Your task to perform on an android device: turn off picture-in-picture Image 0: 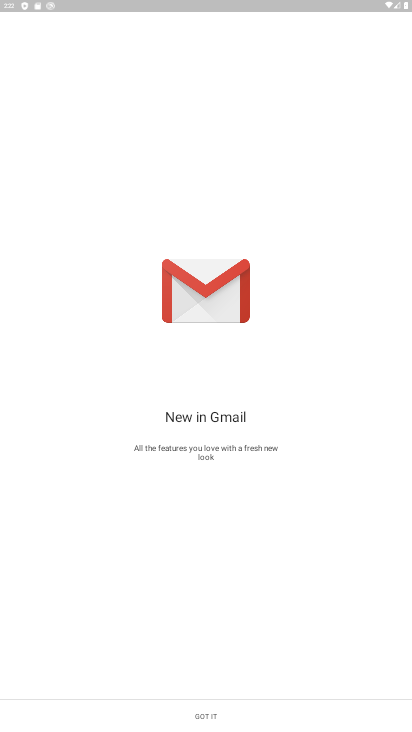
Step 0: press home button
Your task to perform on an android device: turn off picture-in-picture Image 1: 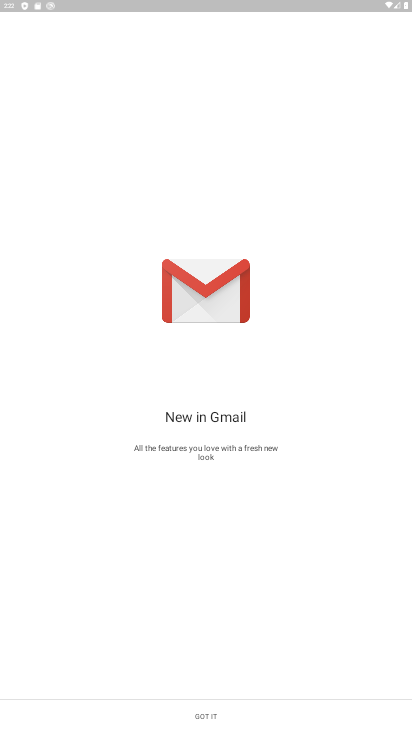
Step 1: press home button
Your task to perform on an android device: turn off picture-in-picture Image 2: 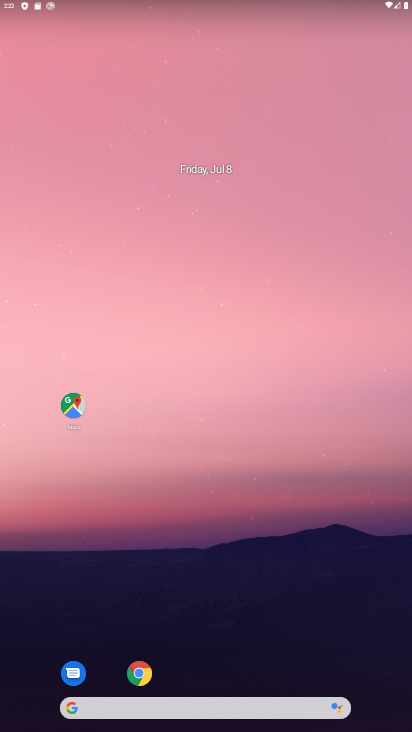
Step 2: click (155, 682)
Your task to perform on an android device: turn off picture-in-picture Image 3: 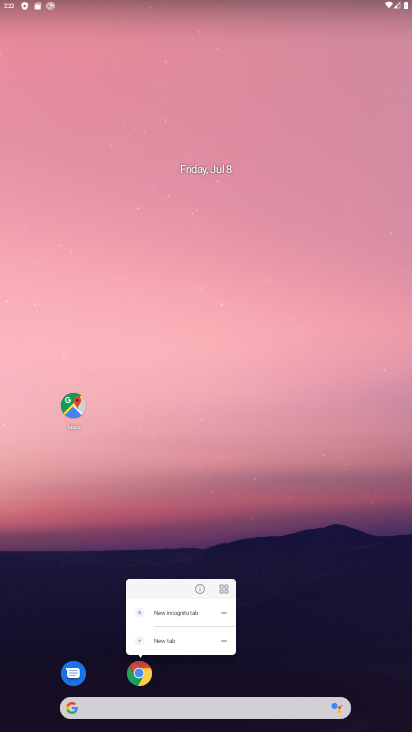
Step 3: click (196, 589)
Your task to perform on an android device: turn off picture-in-picture Image 4: 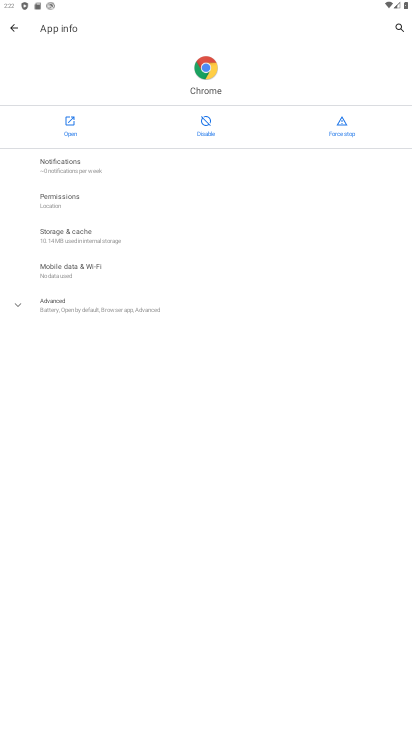
Step 4: click (77, 320)
Your task to perform on an android device: turn off picture-in-picture Image 5: 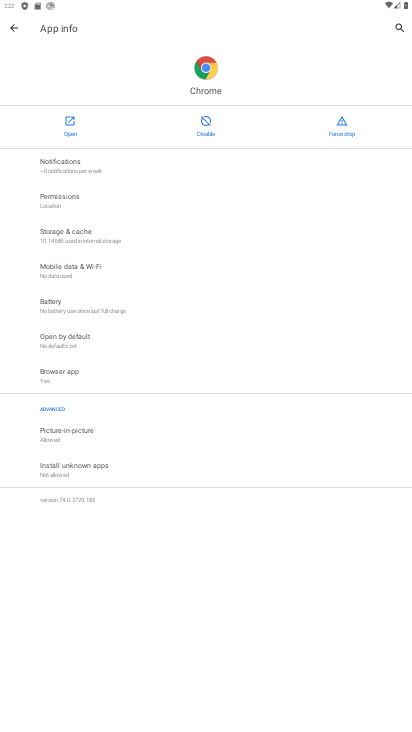
Step 5: click (91, 428)
Your task to perform on an android device: turn off picture-in-picture Image 6: 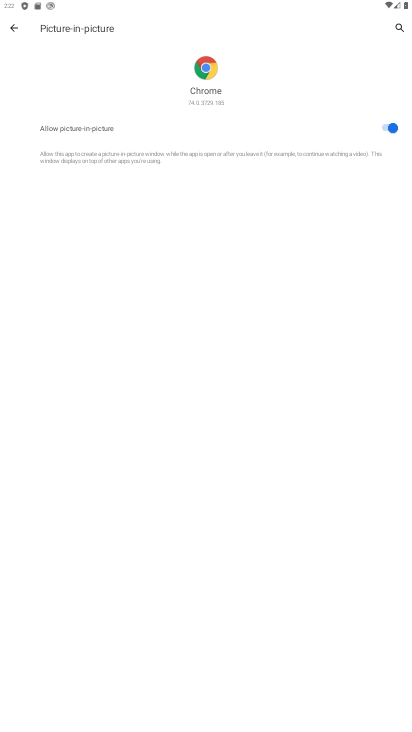
Step 6: click (390, 126)
Your task to perform on an android device: turn off picture-in-picture Image 7: 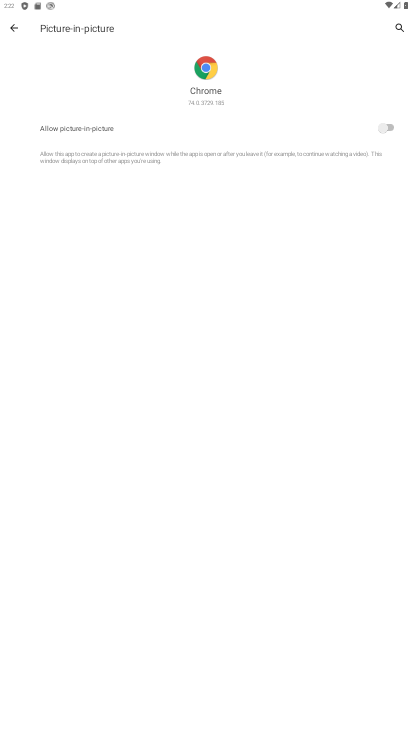
Step 7: task complete